Your task to perform on an android device: delete browsing data in the chrome app Image 0: 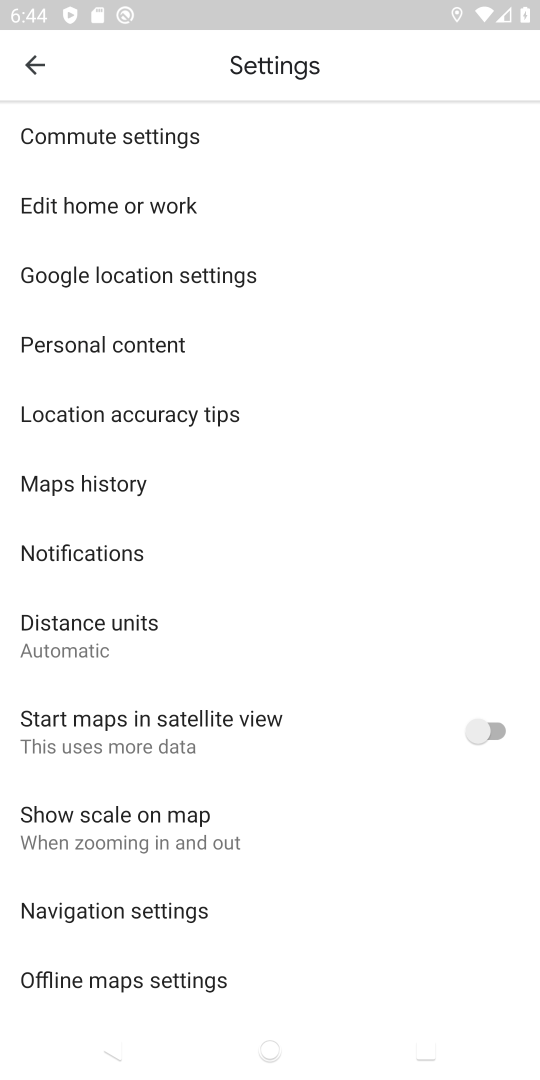
Step 0: press home button
Your task to perform on an android device: delete browsing data in the chrome app Image 1: 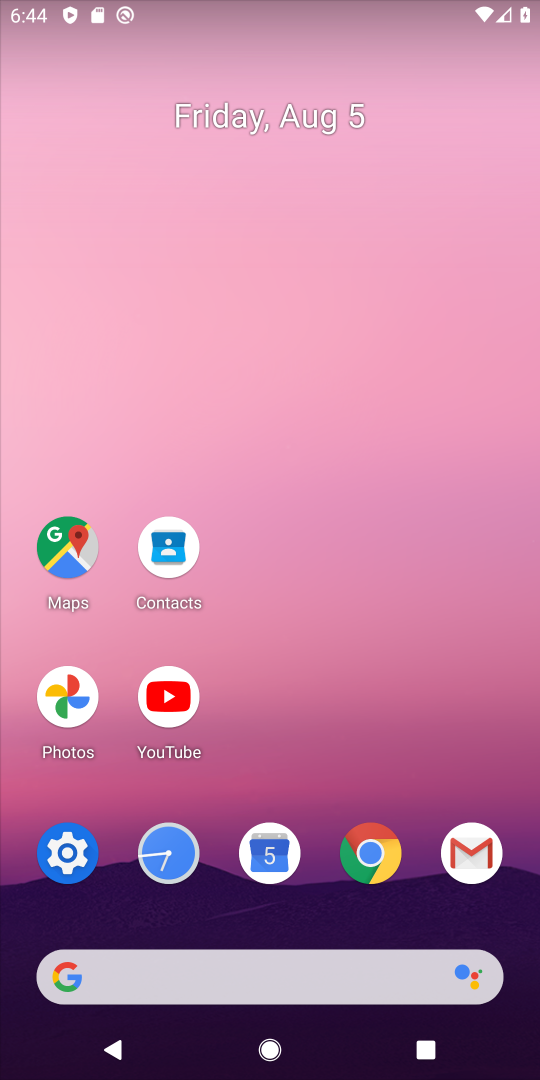
Step 1: click (371, 860)
Your task to perform on an android device: delete browsing data in the chrome app Image 2: 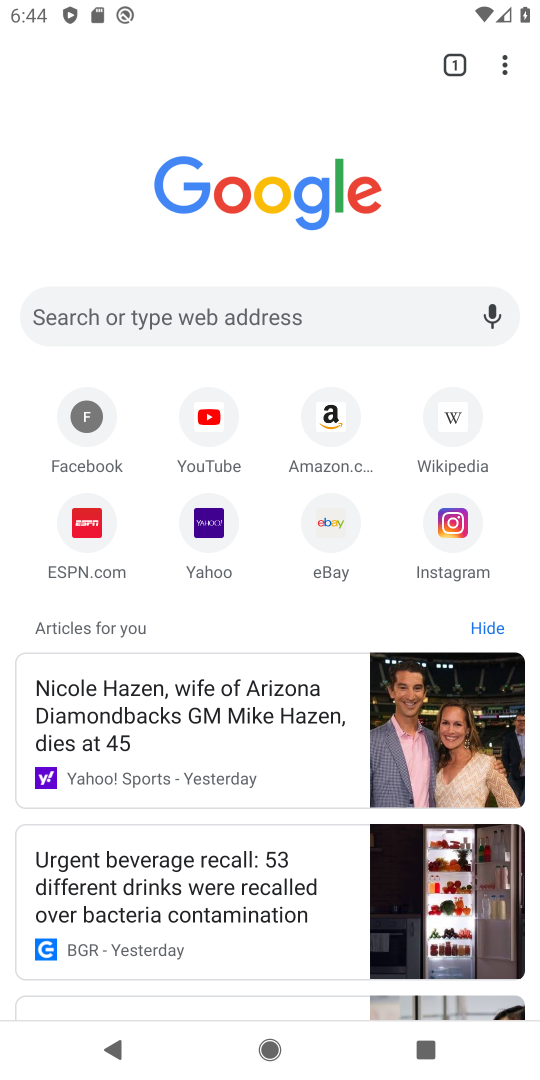
Step 2: click (505, 61)
Your task to perform on an android device: delete browsing data in the chrome app Image 3: 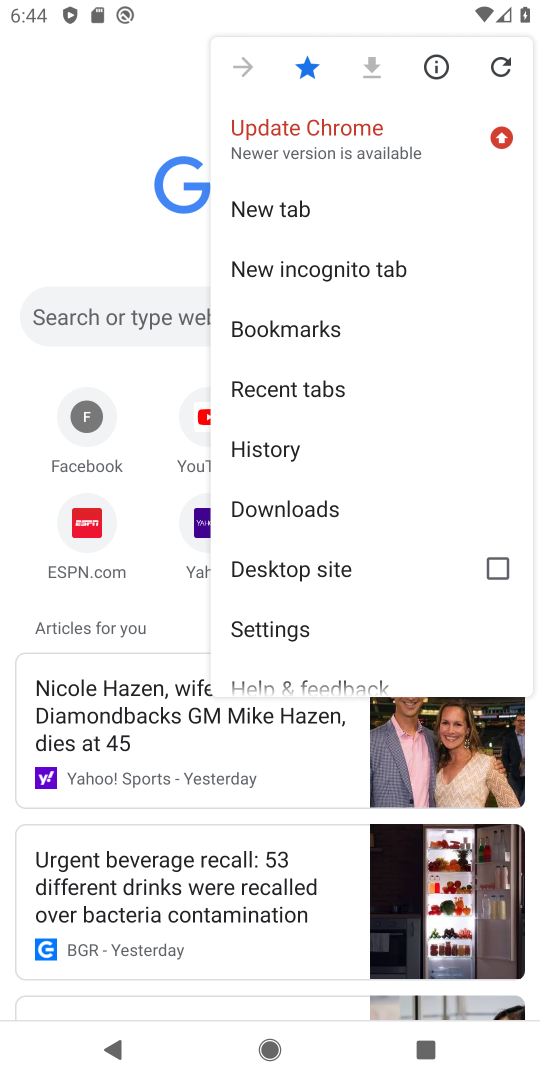
Step 3: click (281, 444)
Your task to perform on an android device: delete browsing data in the chrome app Image 4: 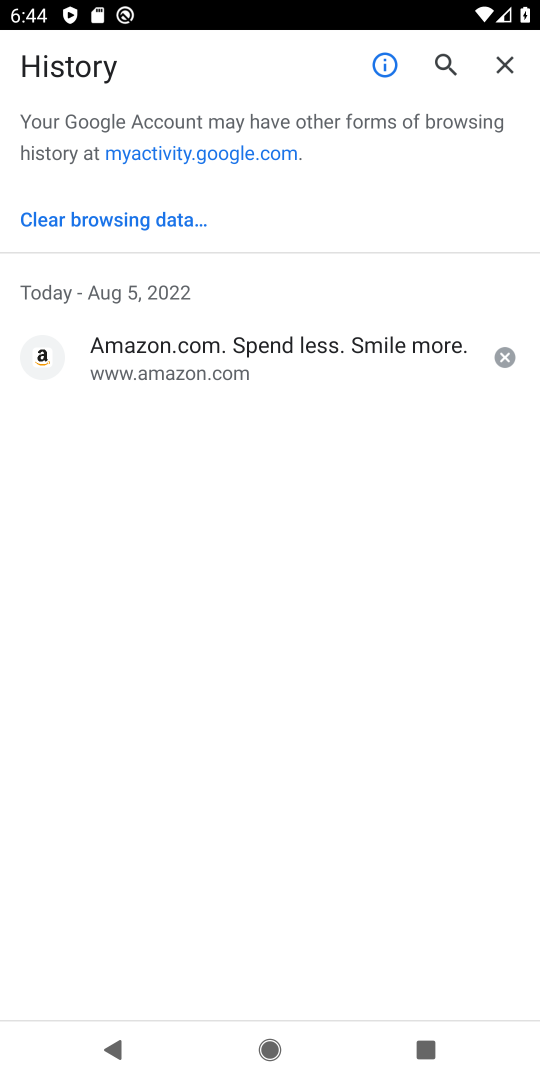
Step 4: click (129, 216)
Your task to perform on an android device: delete browsing data in the chrome app Image 5: 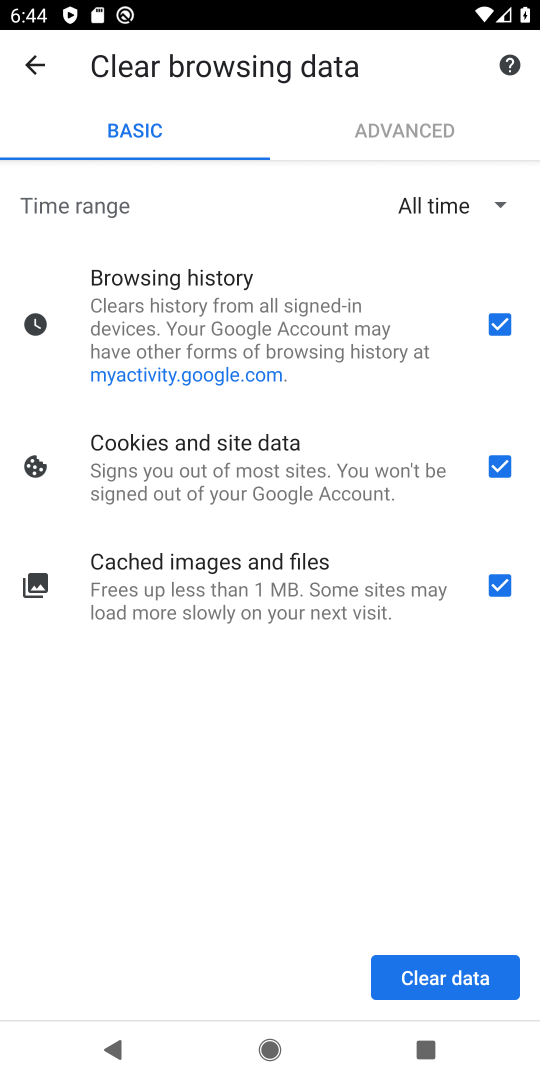
Step 5: click (455, 981)
Your task to perform on an android device: delete browsing data in the chrome app Image 6: 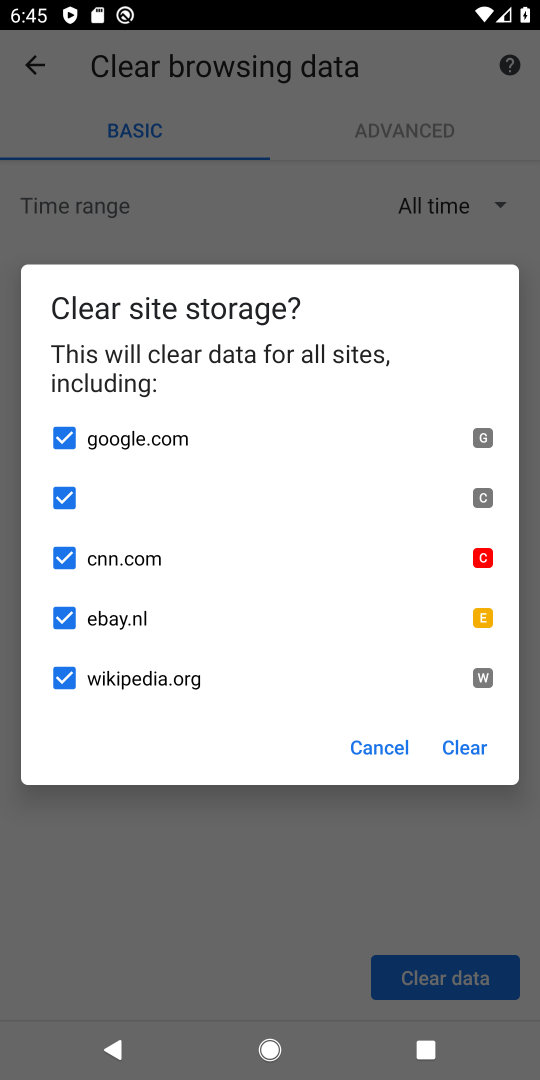
Step 6: click (459, 744)
Your task to perform on an android device: delete browsing data in the chrome app Image 7: 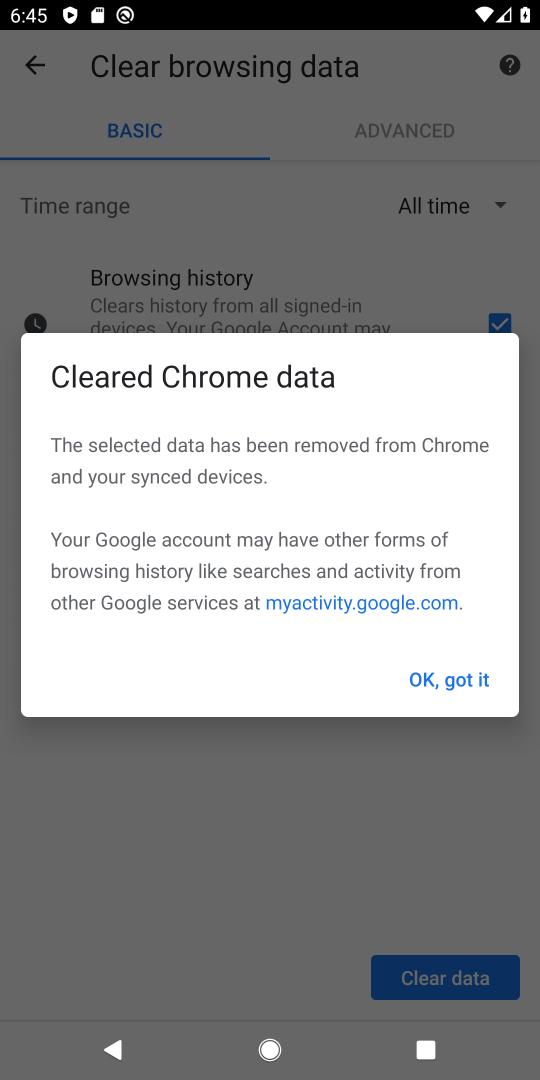
Step 7: click (457, 676)
Your task to perform on an android device: delete browsing data in the chrome app Image 8: 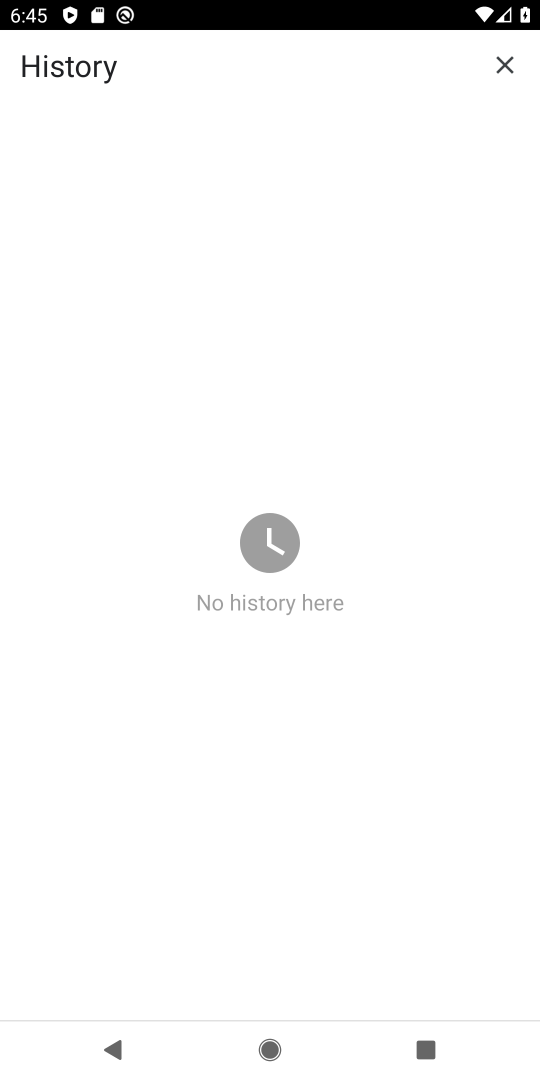
Step 8: task complete